Your task to perform on an android device: turn on priority inbox in the gmail app Image 0: 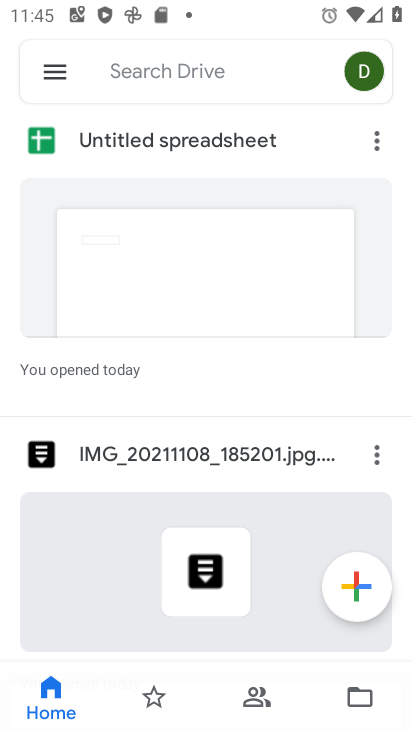
Step 0: press home button
Your task to perform on an android device: turn on priority inbox in the gmail app Image 1: 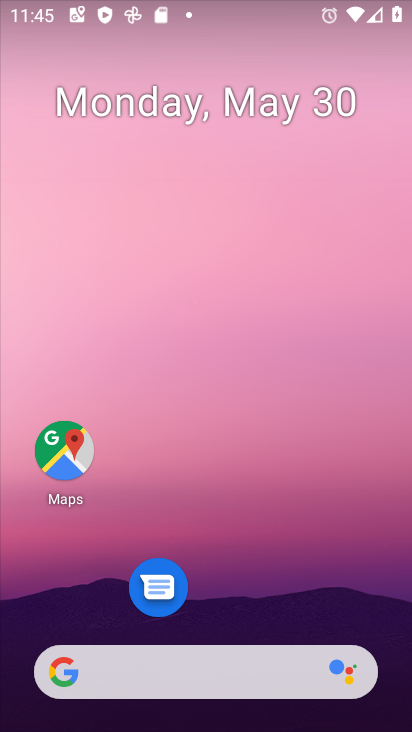
Step 1: drag from (216, 620) to (172, 7)
Your task to perform on an android device: turn on priority inbox in the gmail app Image 2: 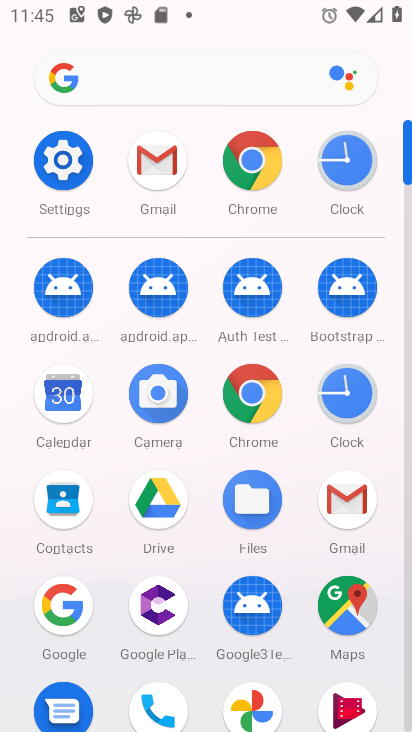
Step 2: click (344, 512)
Your task to perform on an android device: turn on priority inbox in the gmail app Image 3: 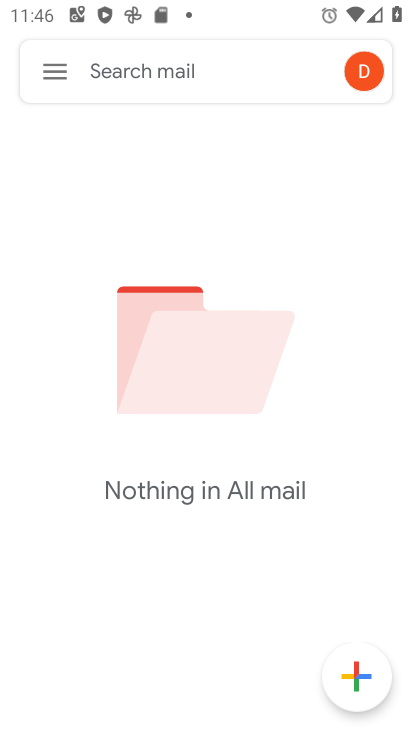
Step 3: click (61, 60)
Your task to perform on an android device: turn on priority inbox in the gmail app Image 4: 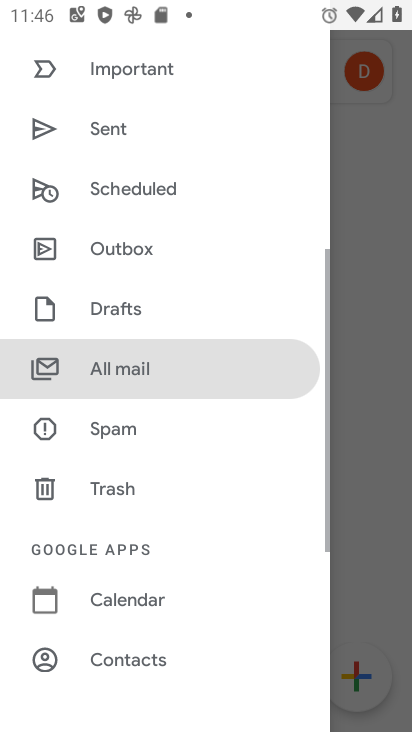
Step 4: drag from (92, 660) to (122, 9)
Your task to perform on an android device: turn on priority inbox in the gmail app Image 5: 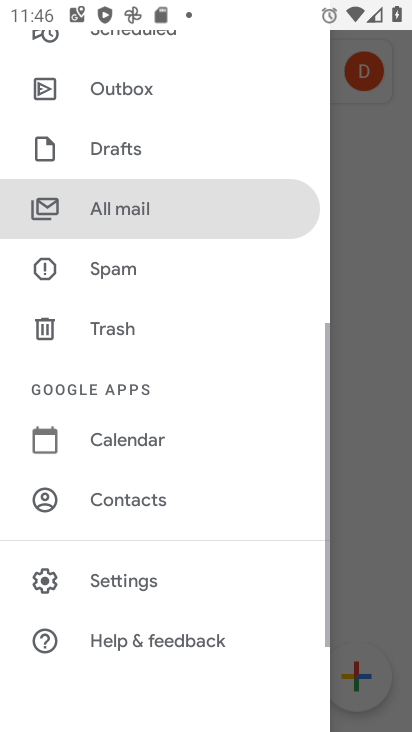
Step 5: click (131, 570)
Your task to perform on an android device: turn on priority inbox in the gmail app Image 6: 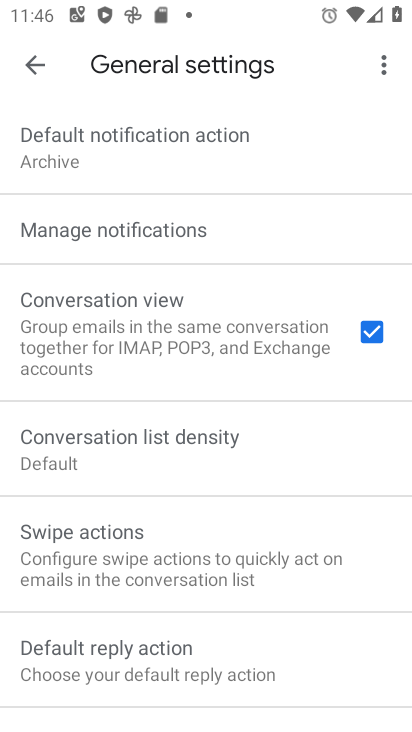
Step 6: click (41, 64)
Your task to perform on an android device: turn on priority inbox in the gmail app Image 7: 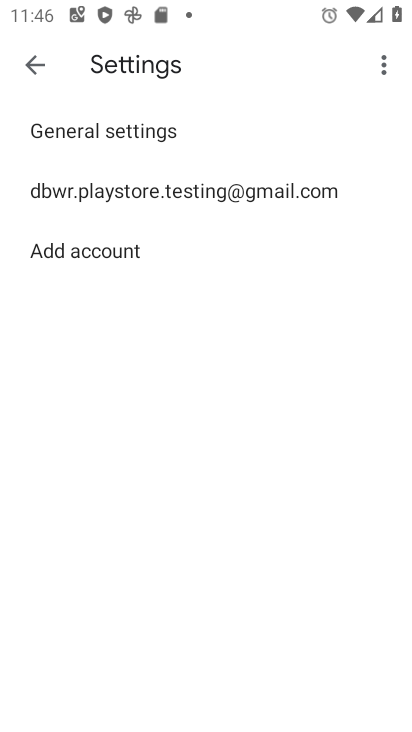
Step 7: click (91, 189)
Your task to perform on an android device: turn on priority inbox in the gmail app Image 8: 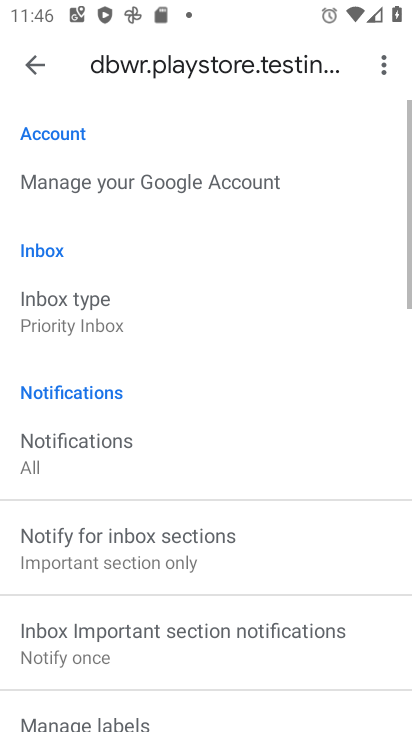
Step 8: click (114, 326)
Your task to perform on an android device: turn on priority inbox in the gmail app Image 9: 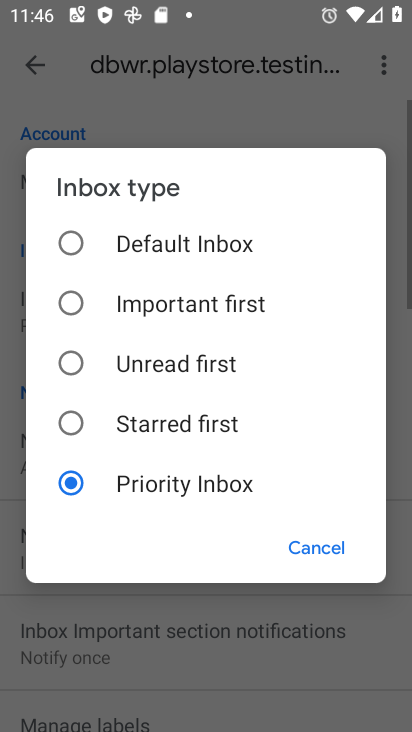
Step 9: click (181, 477)
Your task to perform on an android device: turn on priority inbox in the gmail app Image 10: 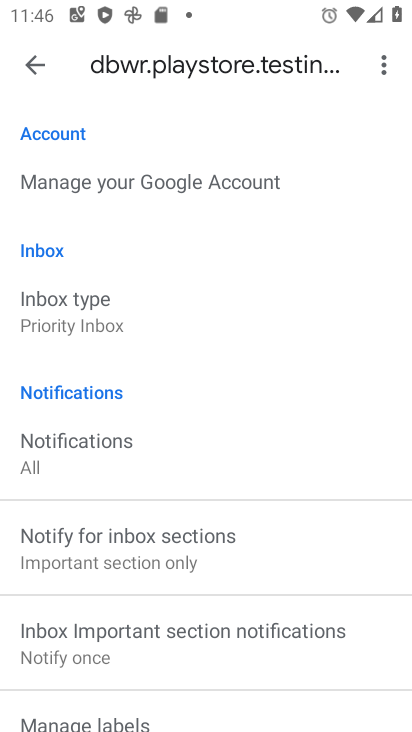
Step 10: task complete